Your task to perform on an android device: change text size in settings app Image 0: 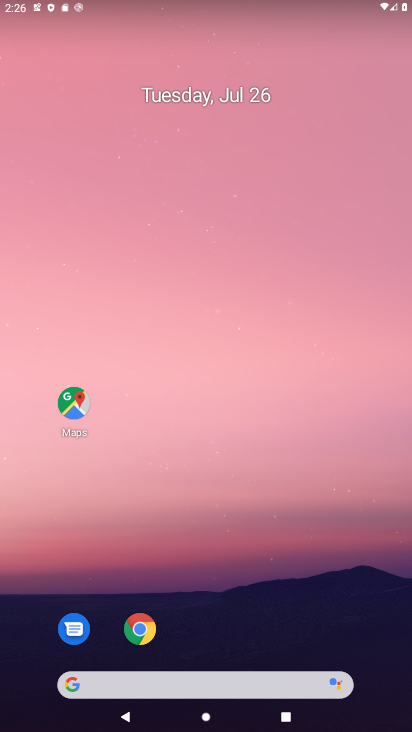
Step 0: drag from (186, 648) to (173, 150)
Your task to perform on an android device: change text size in settings app Image 1: 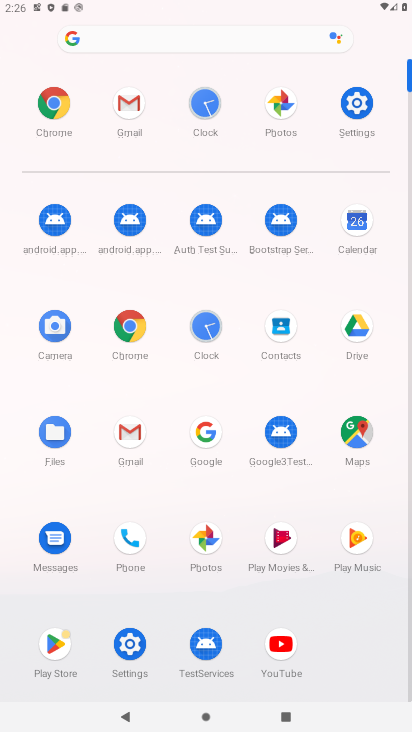
Step 1: click (349, 104)
Your task to perform on an android device: change text size in settings app Image 2: 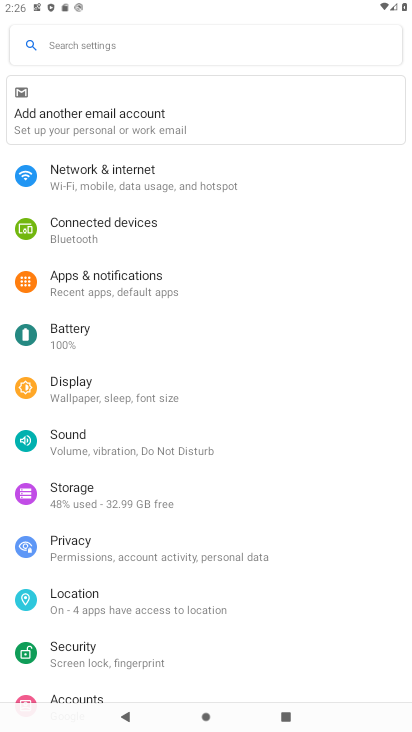
Step 2: click (96, 401)
Your task to perform on an android device: change text size in settings app Image 3: 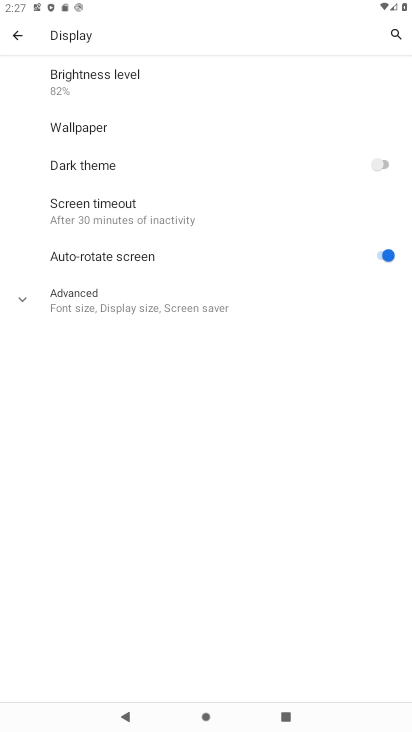
Step 3: click (113, 313)
Your task to perform on an android device: change text size in settings app Image 4: 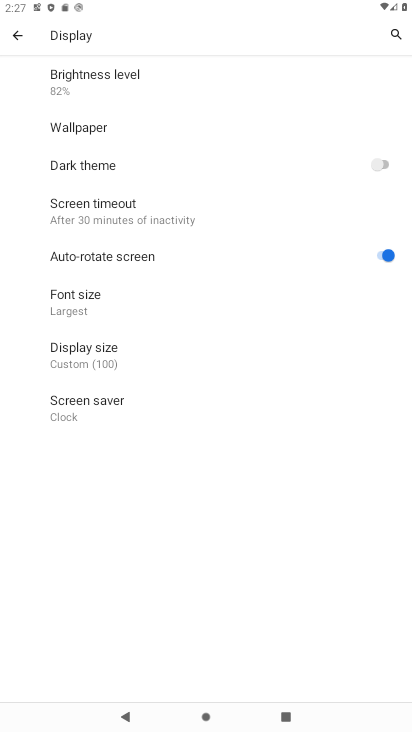
Step 4: click (117, 305)
Your task to perform on an android device: change text size in settings app Image 5: 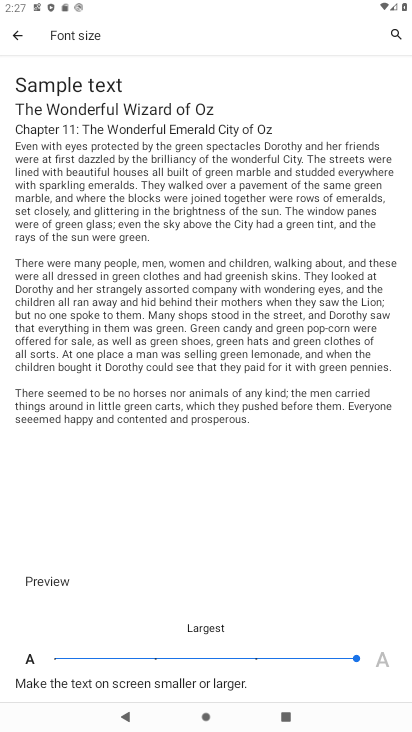
Step 5: click (272, 653)
Your task to perform on an android device: change text size in settings app Image 6: 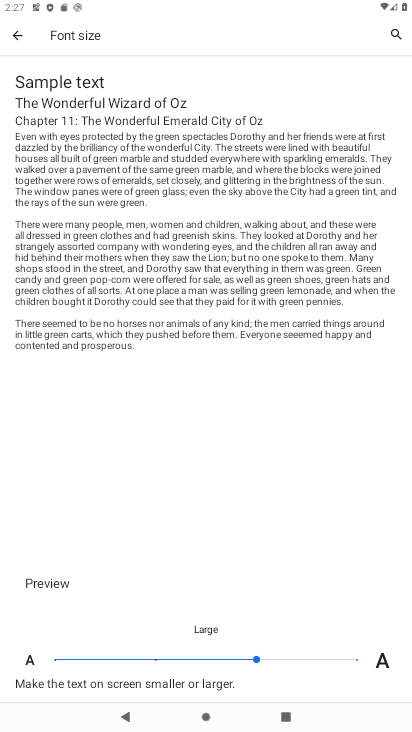
Step 6: task complete